Your task to perform on an android device: Go to settings Image 0: 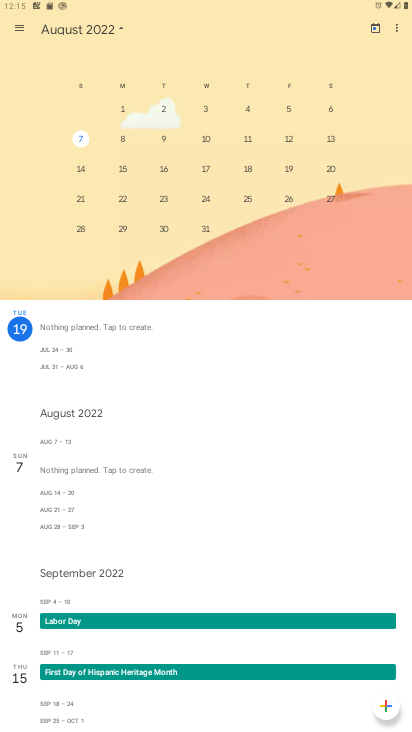
Step 0: press home button
Your task to perform on an android device: Go to settings Image 1: 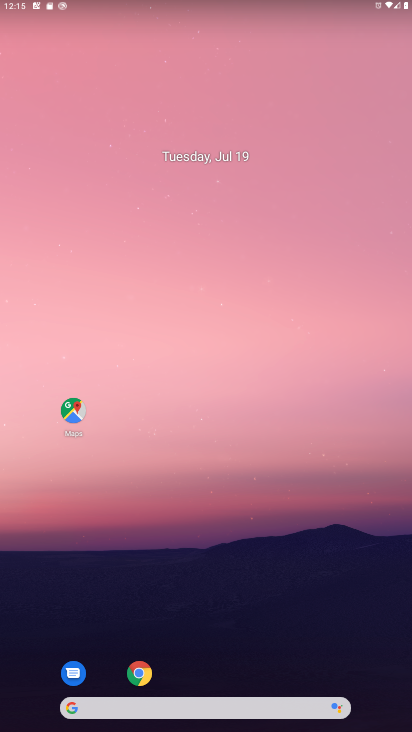
Step 1: drag from (210, 656) to (228, 169)
Your task to perform on an android device: Go to settings Image 2: 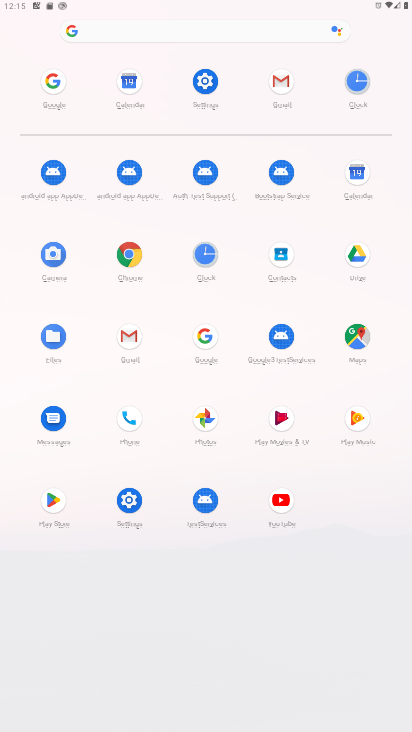
Step 2: click (211, 95)
Your task to perform on an android device: Go to settings Image 3: 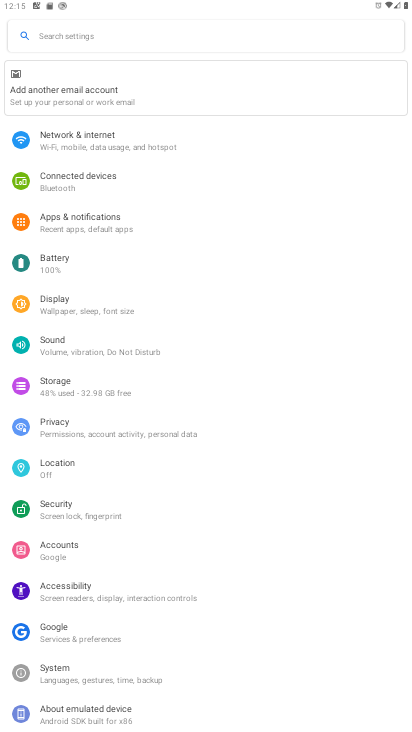
Step 3: task complete